Your task to perform on an android device: open a bookmark in the chrome app Image 0: 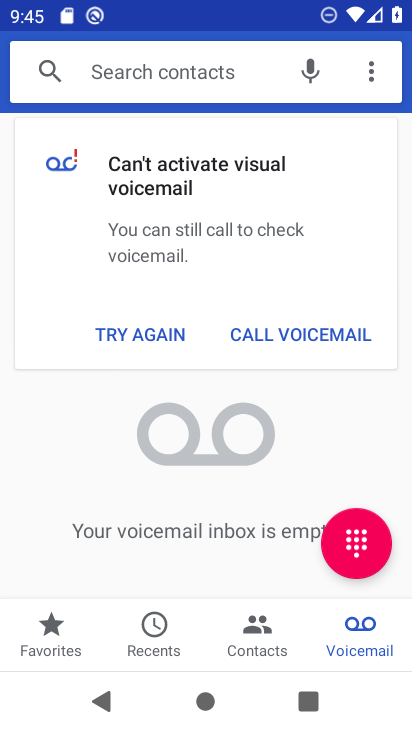
Step 0: press home button
Your task to perform on an android device: open a bookmark in the chrome app Image 1: 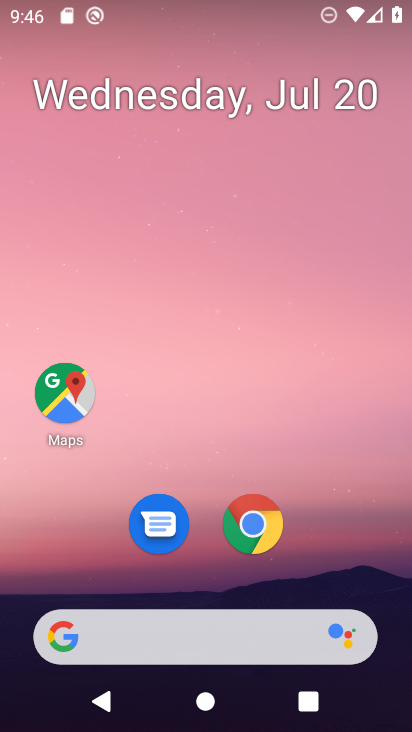
Step 1: click (251, 525)
Your task to perform on an android device: open a bookmark in the chrome app Image 2: 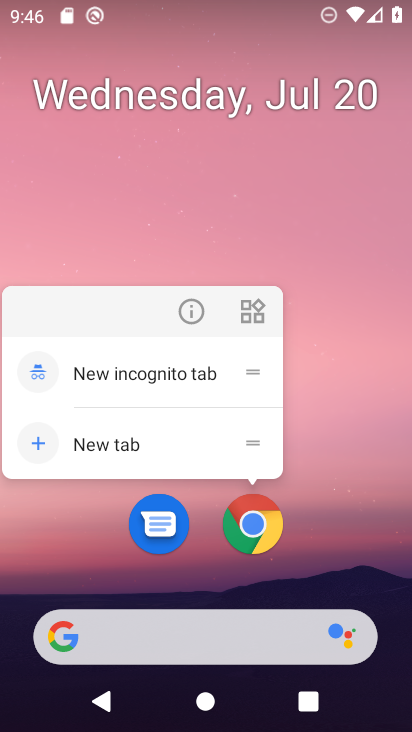
Step 2: click (261, 525)
Your task to perform on an android device: open a bookmark in the chrome app Image 3: 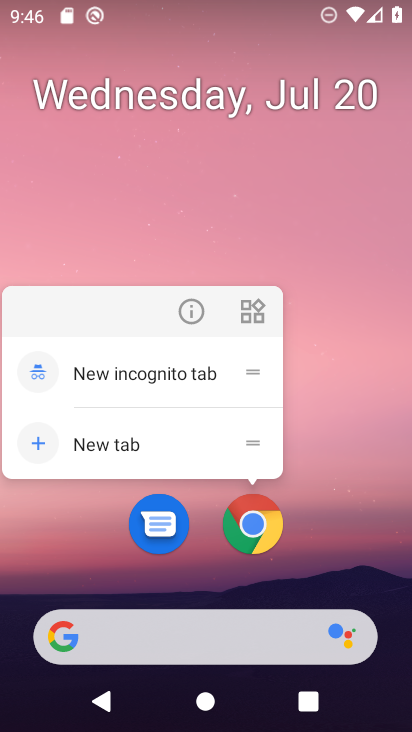
Step 3: click (254, 534)
Your task to perform on an android device: open a bookmark in the chrome app Image 4: 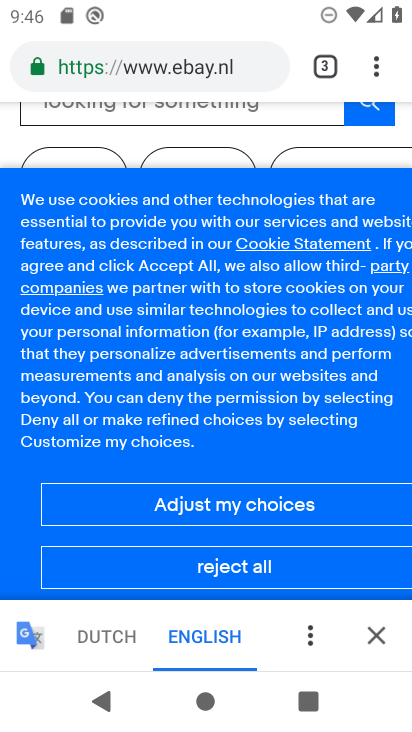
Step 4: task complete